Your task to perform on an android device: When is my next appointment? Image 0: 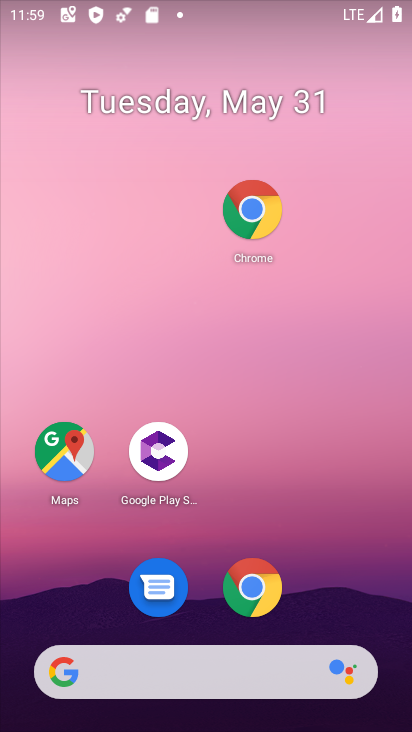
Step 0: drag from (352, 520) to (348, 151)
Your task to perform on an android device: When is my next appointment? Image 1: 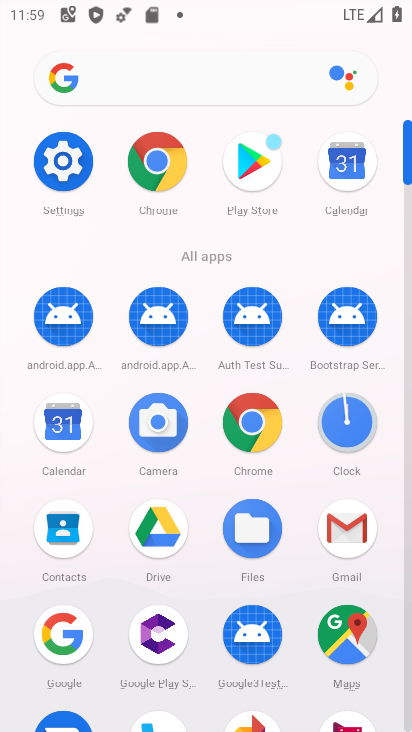
Step 1: click (340, 168)
Your task to perform on an android device: When is my next appointment? Image 2: 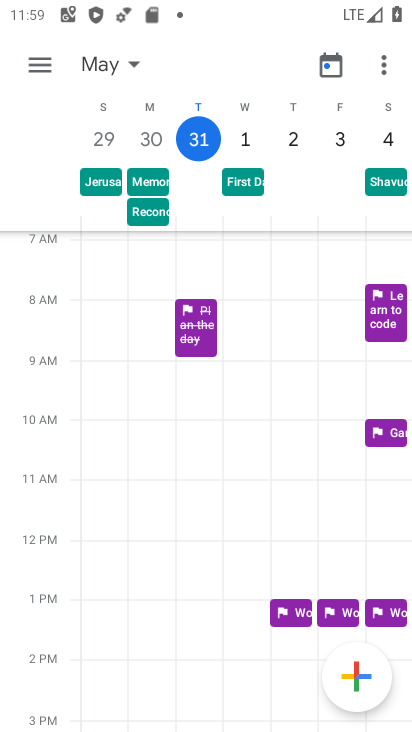
Step 2: click (44, 66)
Your task to perform on an android device: When is my next appointment? Image 3: 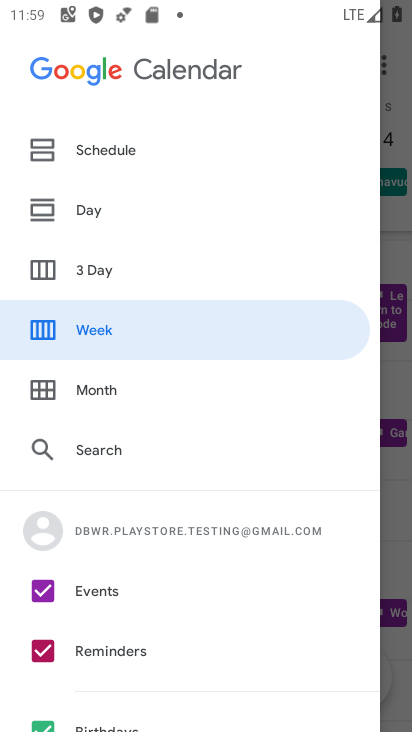
Step 3: click (113, 157)
Your task to perform on an android device: When is my next appointment? Image 4: 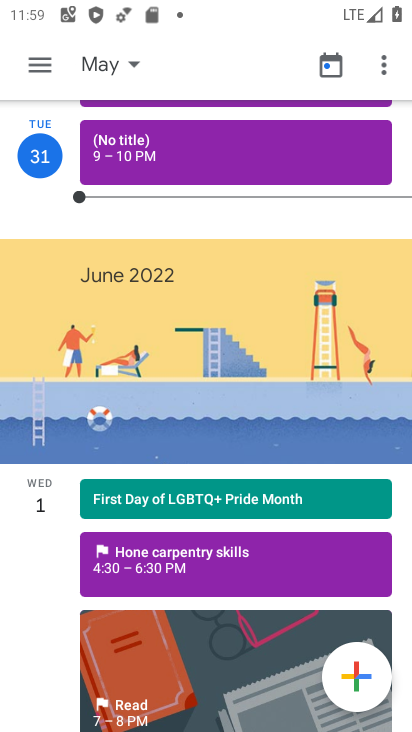
Step 4: drag from (280, 596) to (282, 149)
Your task to perform on an android device: When is my next appointment? Image 5: 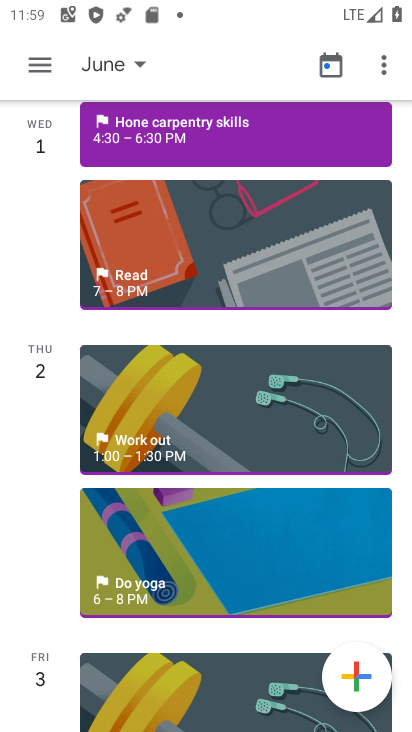
Step 5: drag from (263, 634) to (256, 96)
Your task to perform on an android device: When is my next appointment? Image 6: 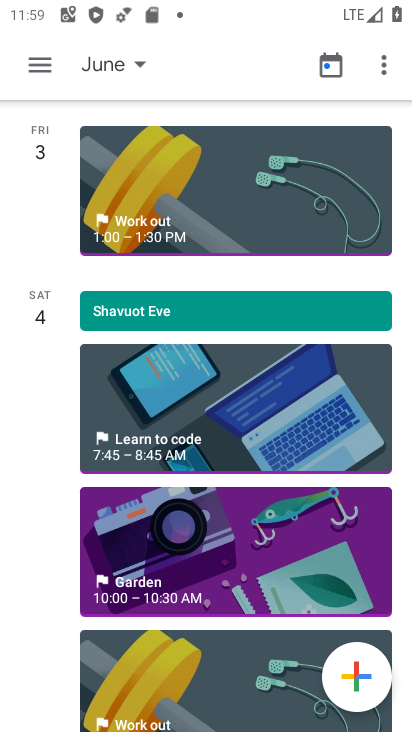
Step 6: drag from (265, 588) to (246, 106)
Your task to perform on an android device: When is my next appointment? Image 7: 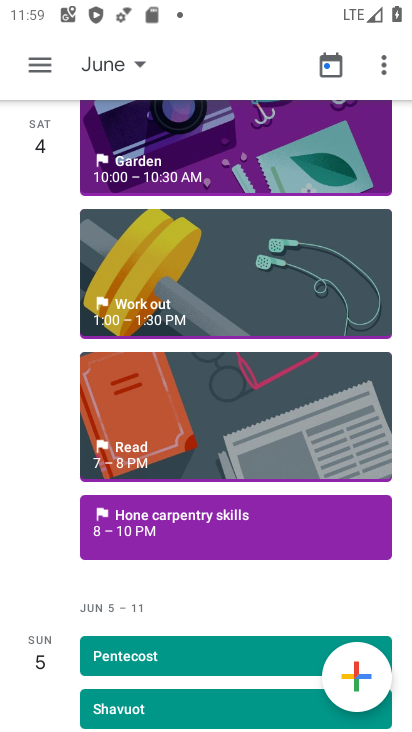
Step 7: drag from (185, 603) to (178, 262)
Your task to perform on an android device: When is my next appointment? Image 8: 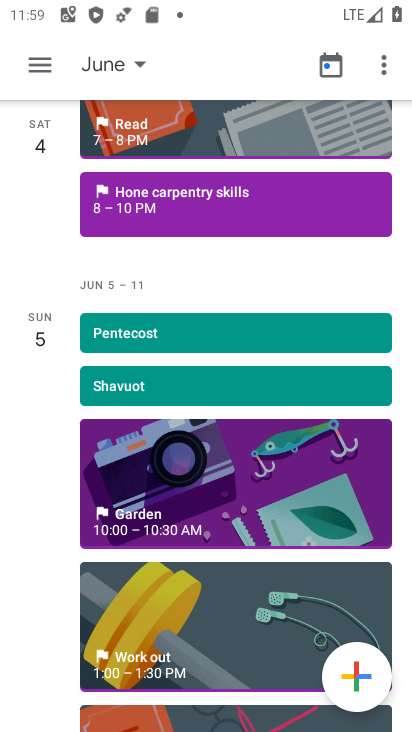
Step 8: drag from (203, 630) to (214, 205)
Your task to perform on an android device: When is my next appointment? Image 9: 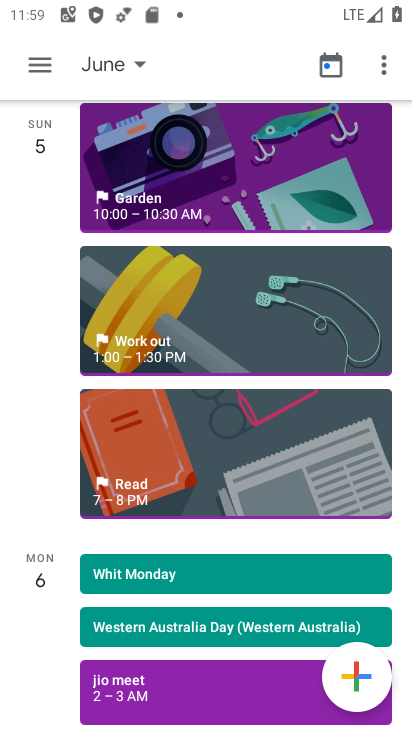
Step 9: click (174, 678)
Your task to perform on an android device: When is my next appointment? Image 10: 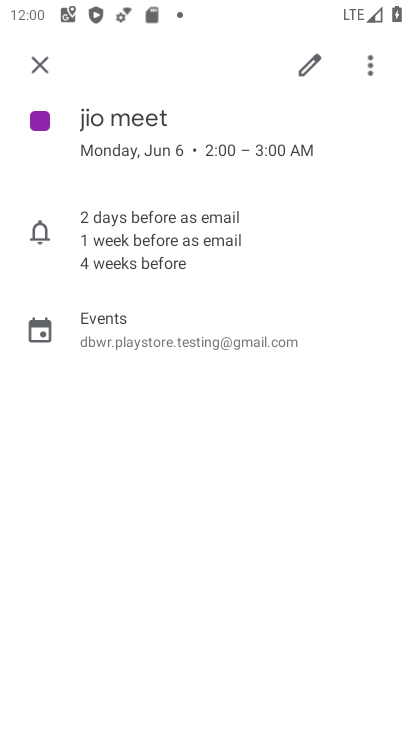
Step 10: task complete